Your task to perform on an android device: change your default location settings in chrome Image 0: 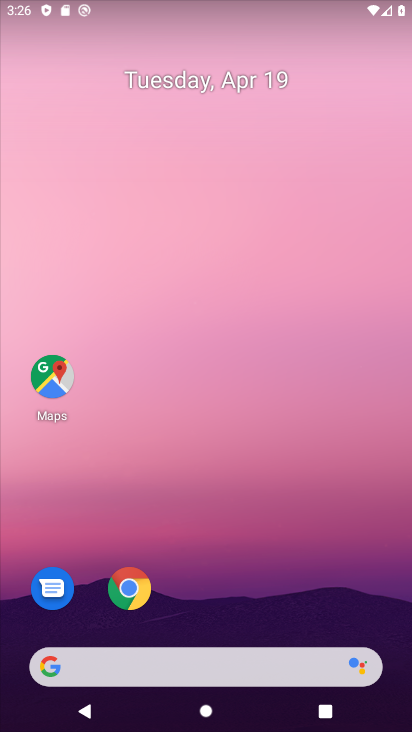
Step 0: click (190, 108)
Your task to perform on an android device: change your default location settings in chrome Image 1: 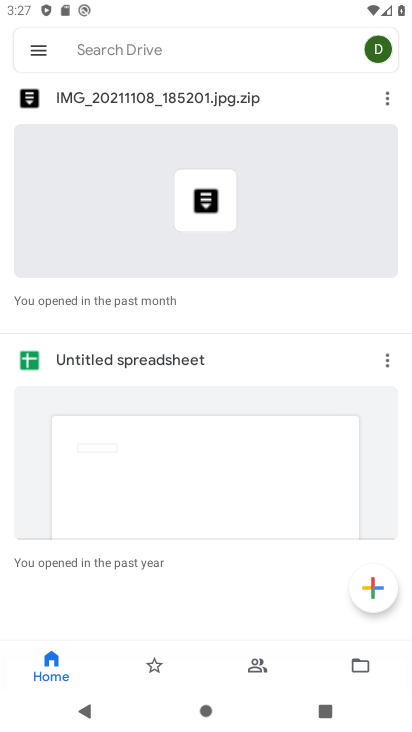
Step 1: press home button
Your task to perform on an android device: change your default location settings in chrome Image 2: 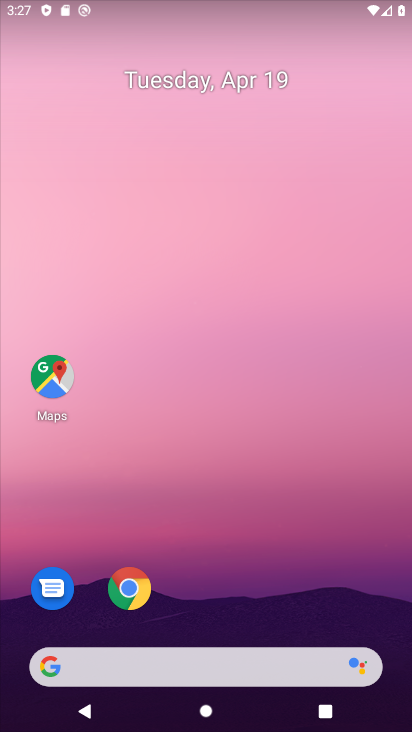
Step 2: click (114, 599)
Your task to perform on an android device: change your default location settings in chrome Image 3: 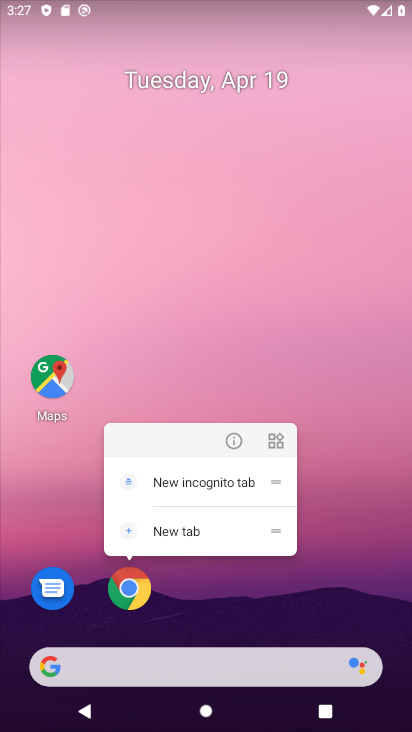
Step 3: click (120, 591)
Your task to perform on an android device: change your default location settings in chrome Image 4: 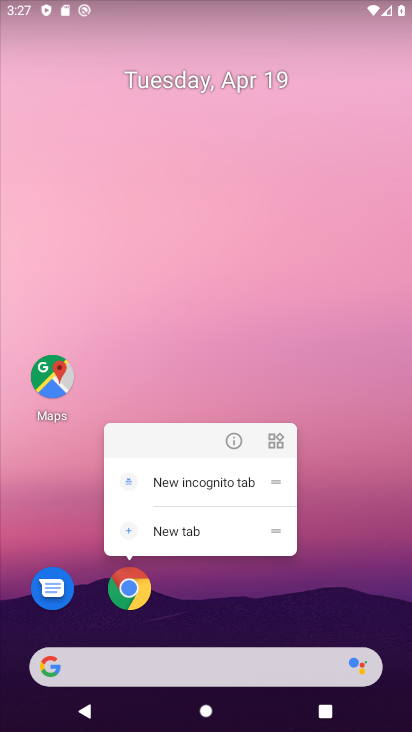
Step 4: click (137, 583)
Your task to perform on an android device: change your default location settings in chrome Image 5: 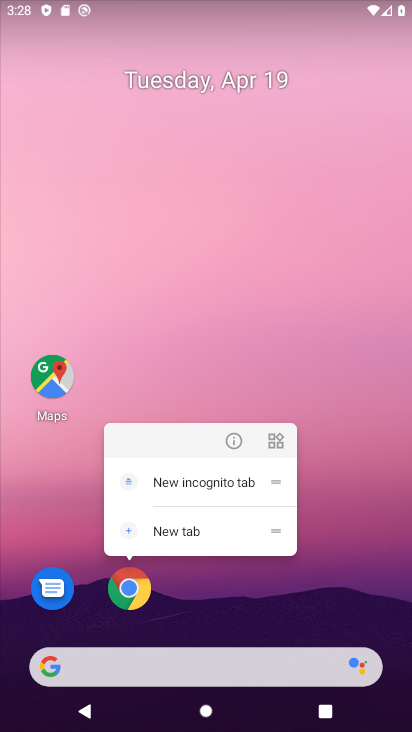
Step 5: click (132, 599)
Your task to perform on an android device: change your default location settings in chrome Image 6: 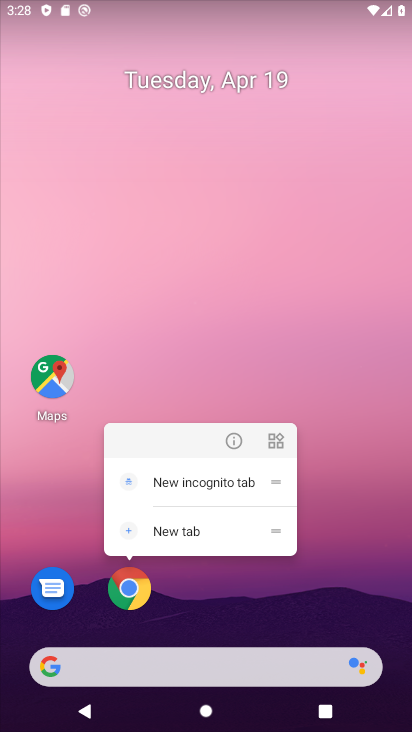
Step 6: click (135, 598)
Your task to perform on an android device: change your default location settings in chrome Image 7: 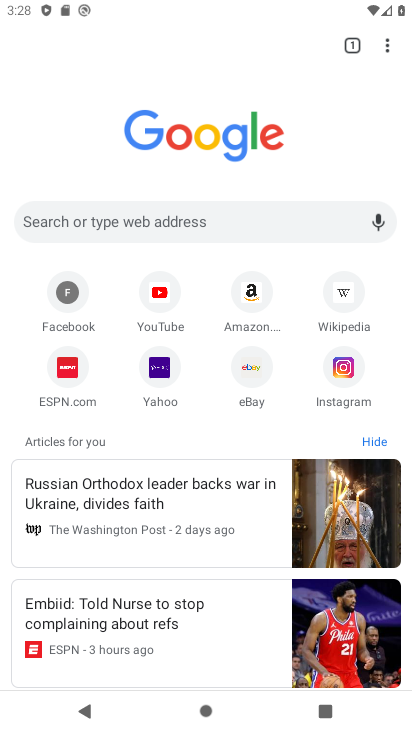
Step 7: click (385, 41)
Your task to perform on an android device: change your default location settings in chrome Image 8: 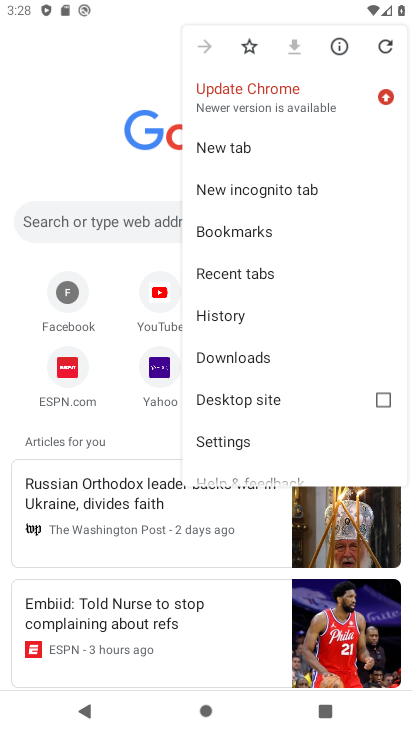
Step 8: click (255, 441)
Your task to perform on an android device: change your default location settings in chrome Image 9: 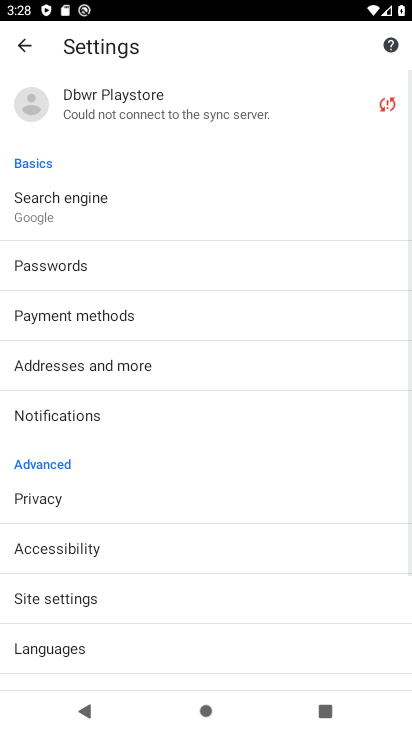
Step 9: click (124, 612)
Your task to perform on an android device: change your default location settings in chrome Image 10: 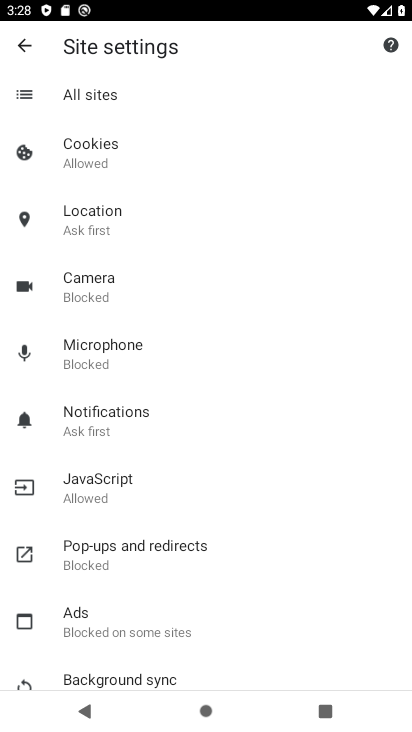
Step 10: click (130, 229)
Your task to perform on an android device: change your default location settings in chrome Image 11: 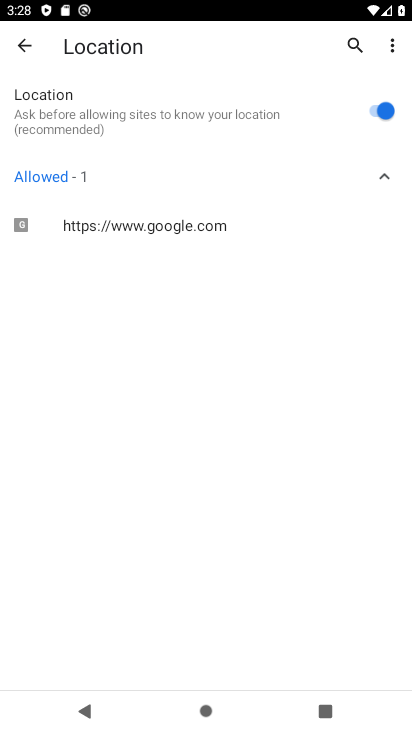
Step 11: click (377, 116)
Your task to perform on an android device: change your default location settings in chrome Image 12: 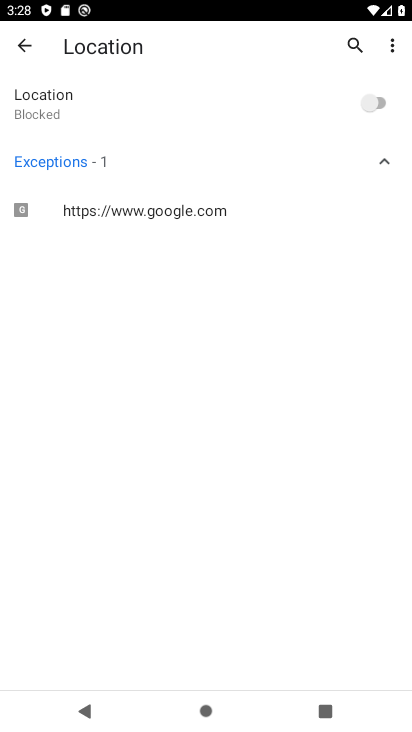
Step 12: task complete